Your task to perform on an android device: turn on notifications settings in the gmail app Image 0: 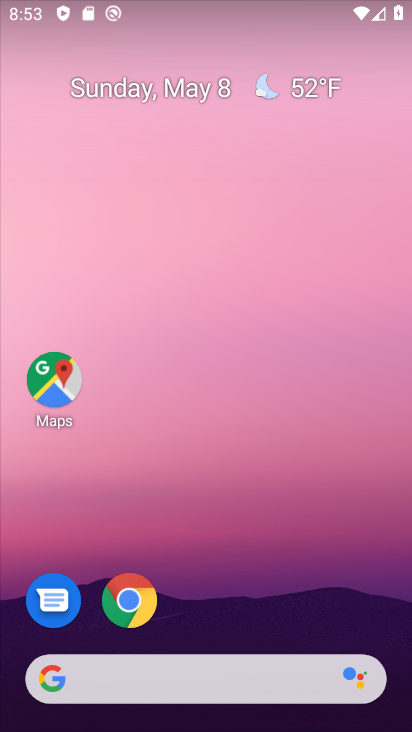
Step 0: drag from (291, 617) to (285, 84)
Your task to perform on an android device: turn on notifications settings in the gmail app Image 1: 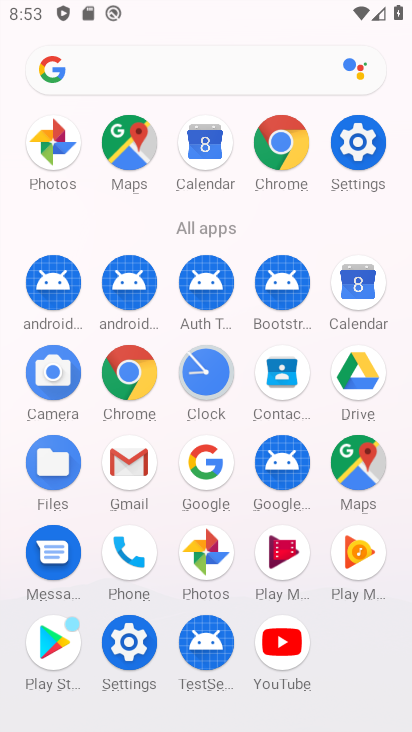
Step 1: click (132, 487)
Your task to perform on an android device: turn on notifications settings in the gmail app Image 2: 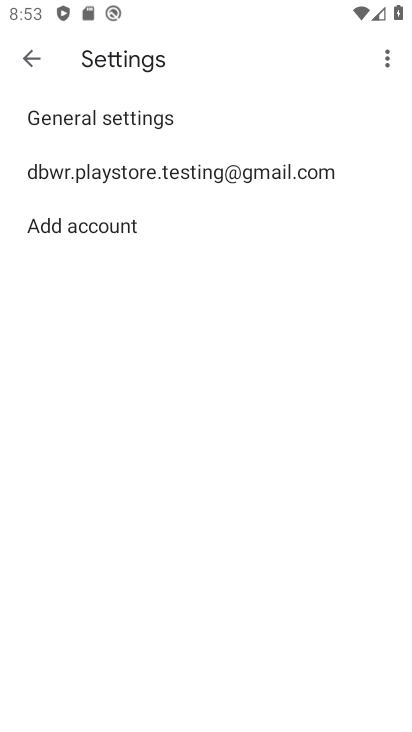
Step 2: click (221, 176)
Your task to perform on an android device: turn on notifications settings in the gmail app Image 3: 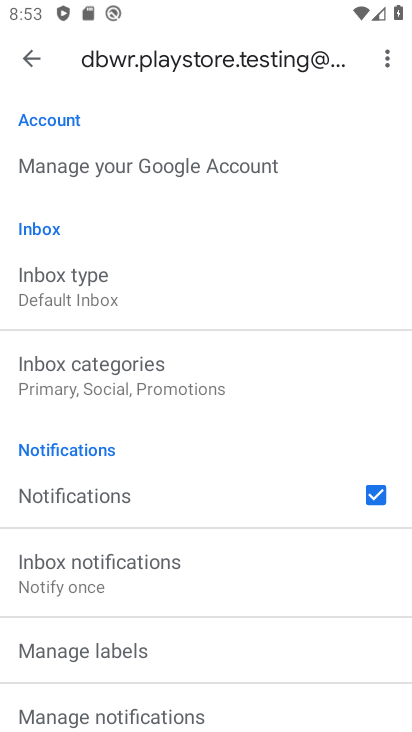
Step 3: task complete